Your task to perform on an android device: Show me productivity apps on the Play Store Image 0: 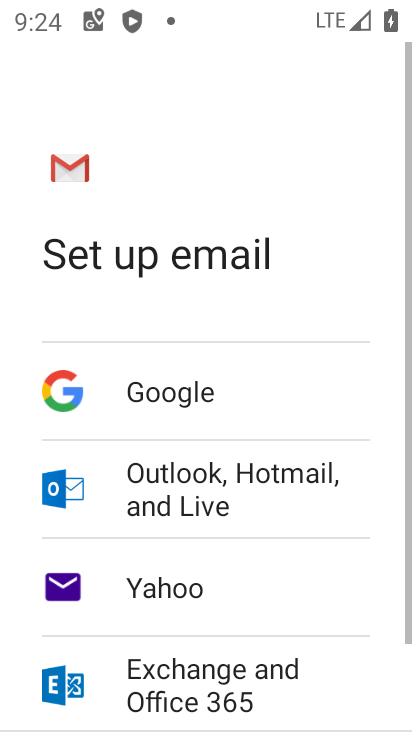
Step 0: press home button
Your task to perform on an android device: Show me productivity apps on the Play Store Image 1: 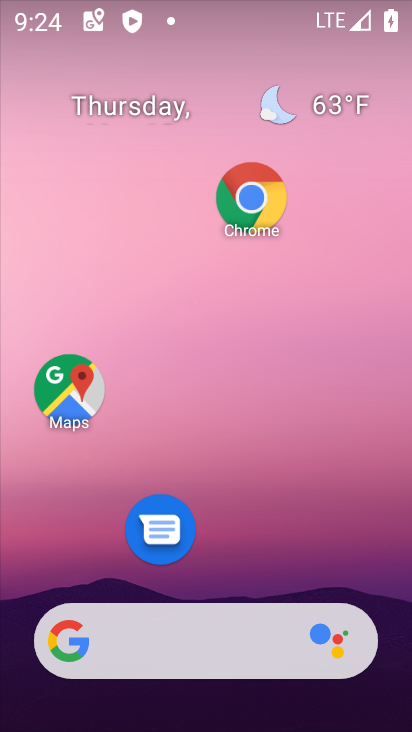
Step 1: drag from (279, 562) to (319, 137)
Your task to perform on an android device: Show me productivity apps on the Play Store Image 2: 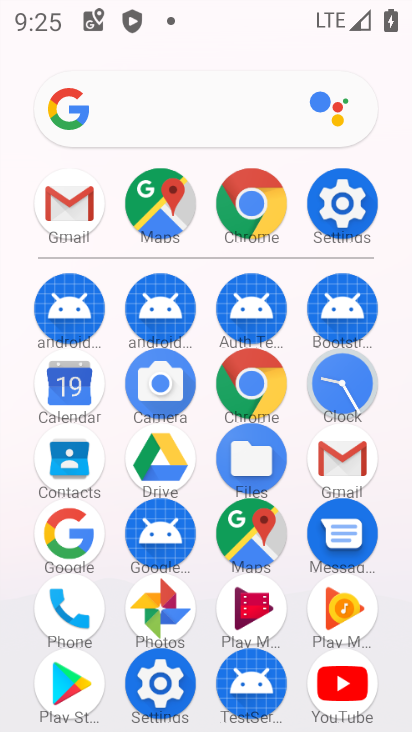
Step 2: click (81, 681)
Your task to perform on an android device: Show me productivity apps on the Play Store Image 3: 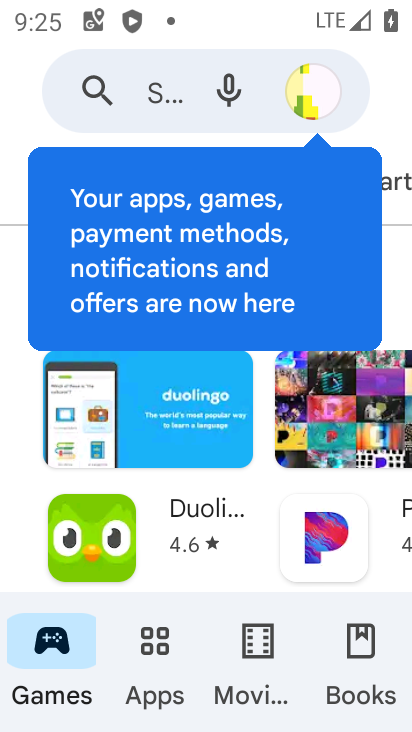
Step 3: click (173, 86)
Your task to perform on an android device: Show me productivity apps on the Play Store Image 4: 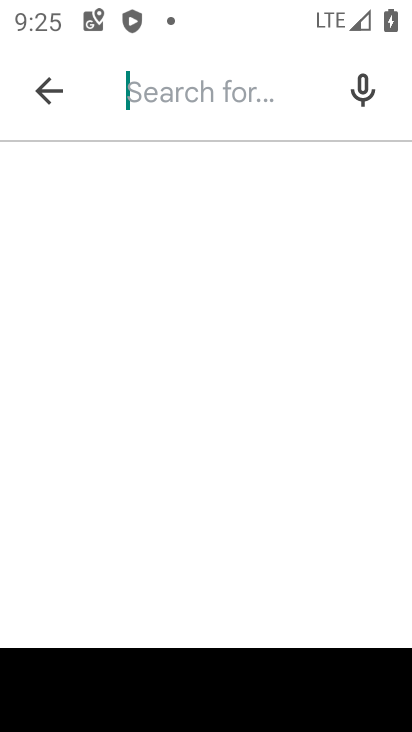
Step 4: type "productivity aaps"
Your task to perform on an android device: Show me productivity apps on the Play Store Image 5: 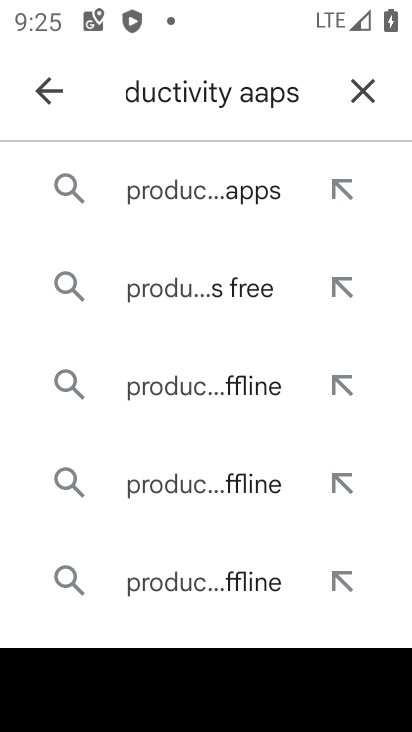
Step 5: click (238, 202)
Your task to perform on an android device: Show me productivity apps on the Play Store Image 6: 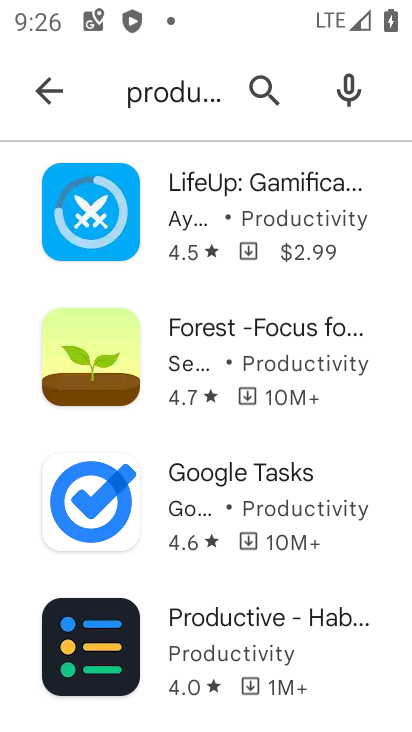
Step 6: task complete